Your task to perform on an android device: See recent photos Image 0: 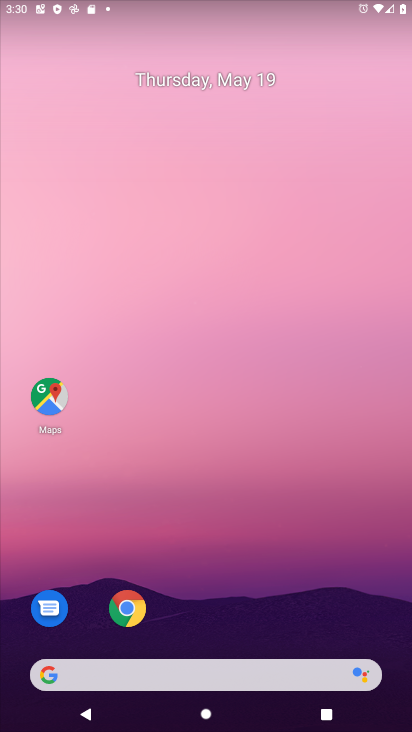
Step 0: drag from (288, 610) to (215, 105)
Your task to perform on an android device: See recent photos Image 1: 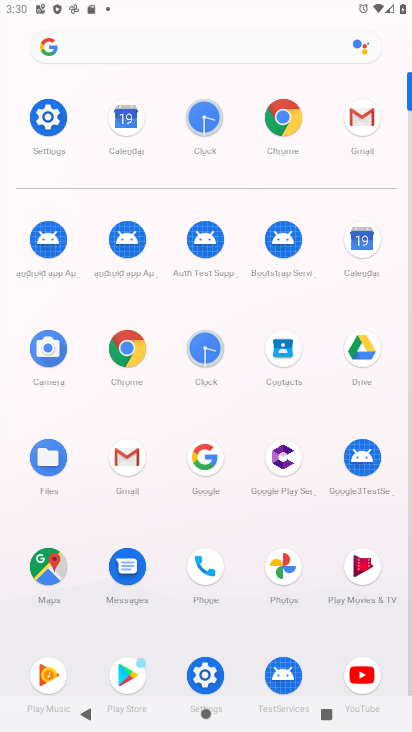
Step 1: click (289, 561)
Your task to perform on an android device: See recent photos Image 2: 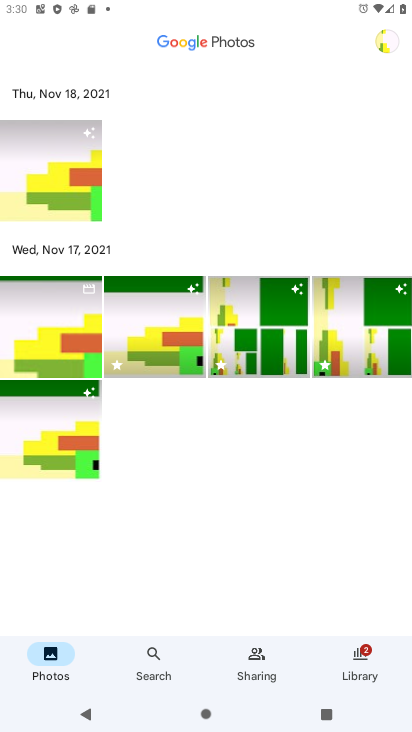
Step 2: task complete